Your task to perform on an android device: turn off improve location accuracy Image 0: 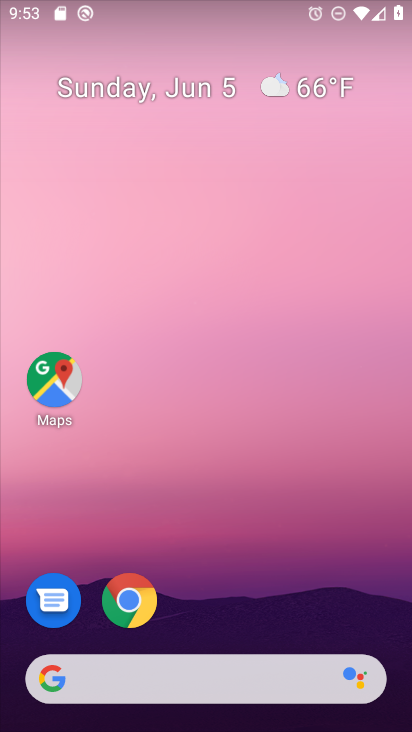
Step 0: drag from (323, 605) to (326, 26)
Your task to perform on an android device: turn off improve location accuracy Image 1: 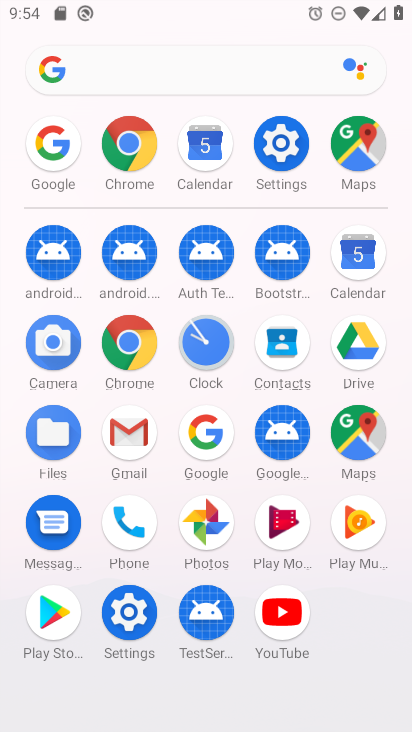
Step 1: click (275, 147)
Your task to perform on an android device: turn off improve location accuracy Image 2: 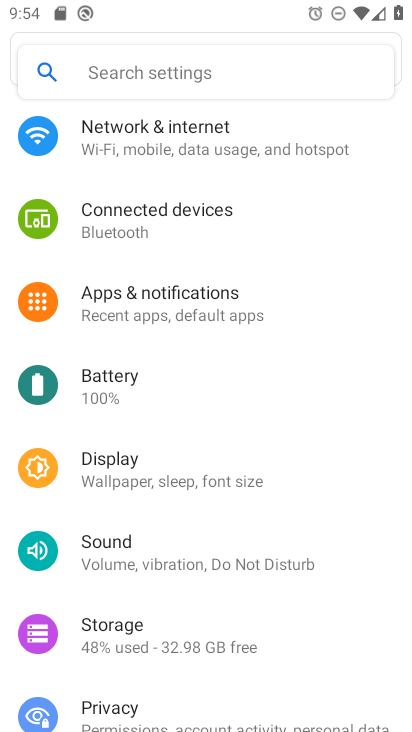
Step 2: drag from (272, 282) to (249, 167)
Your task to perform on an android device: turn off improve location accuracy Image 3: 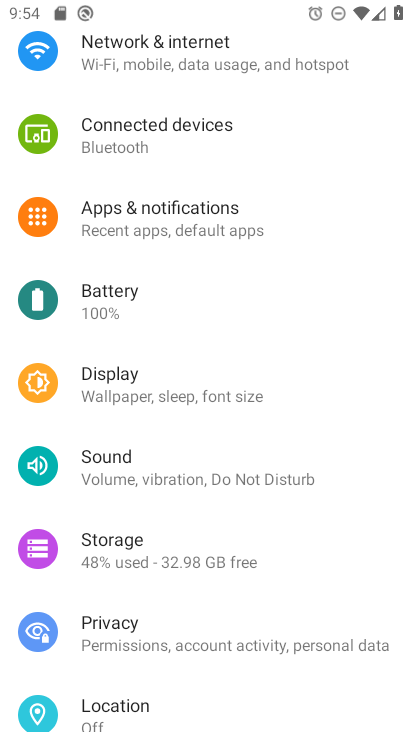
Step 3: click (107, 688)
Your task to perform on an android device: turn off improve location accuracy Image 4: 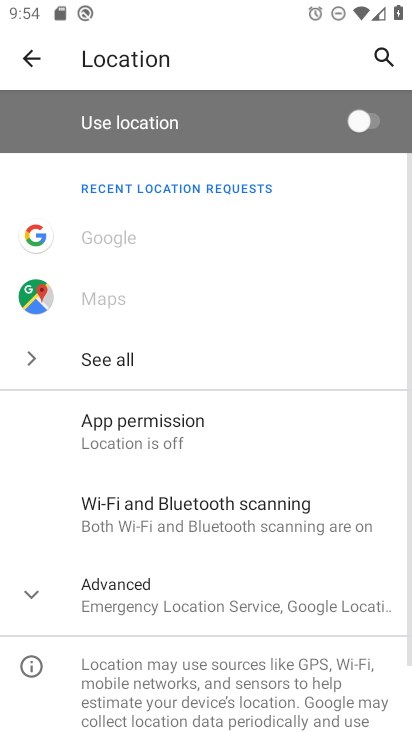
Step 4: click (161, 579)
Your task to perform on an android device: turn off improve location accuracy Image 5: 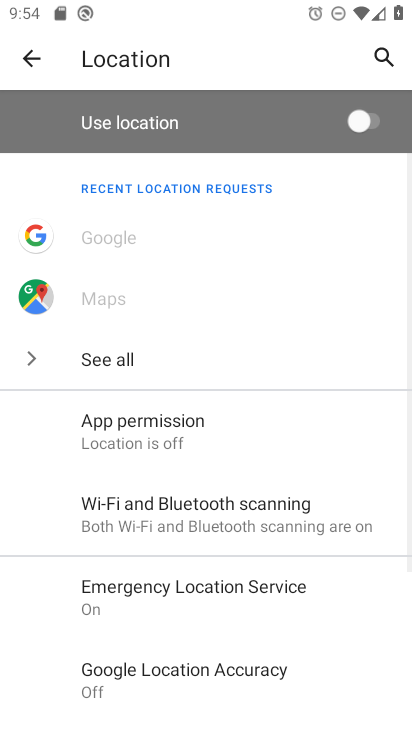
Step 5: click (209, 670)
Your task to perform on an android device: turn off improve location accuracy Image 6: 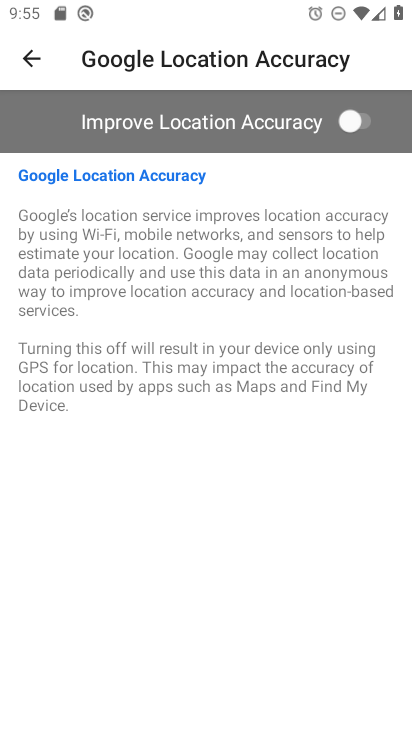
Step 6: task complete